Your task to perform on an android device: uninstall "Spotify: Music and Podcasts" Image 0: 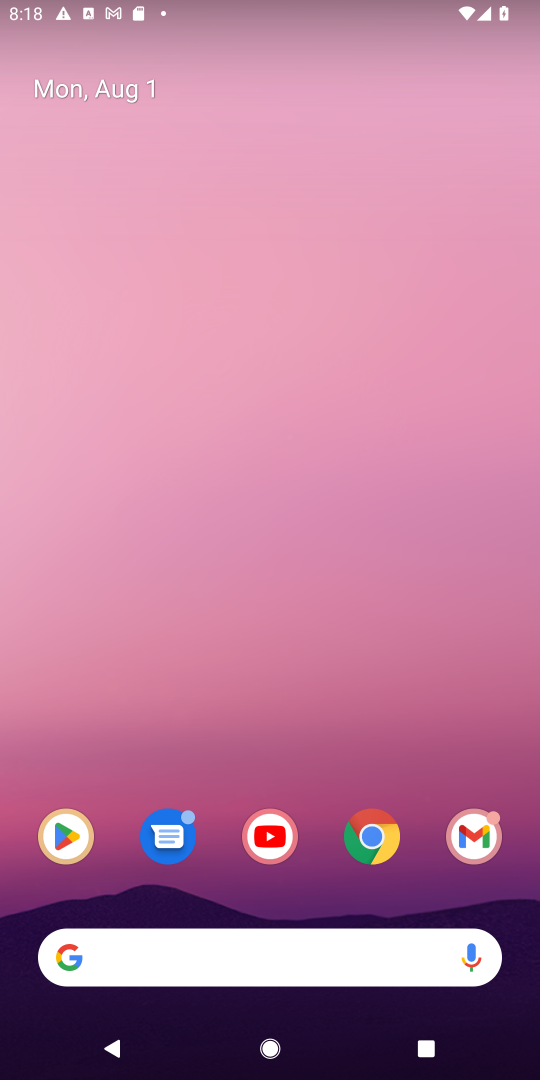
Step 0: press home button
Your task to perform on an android device: uninstall "Spotify: Music and Podcasts" Image 1: 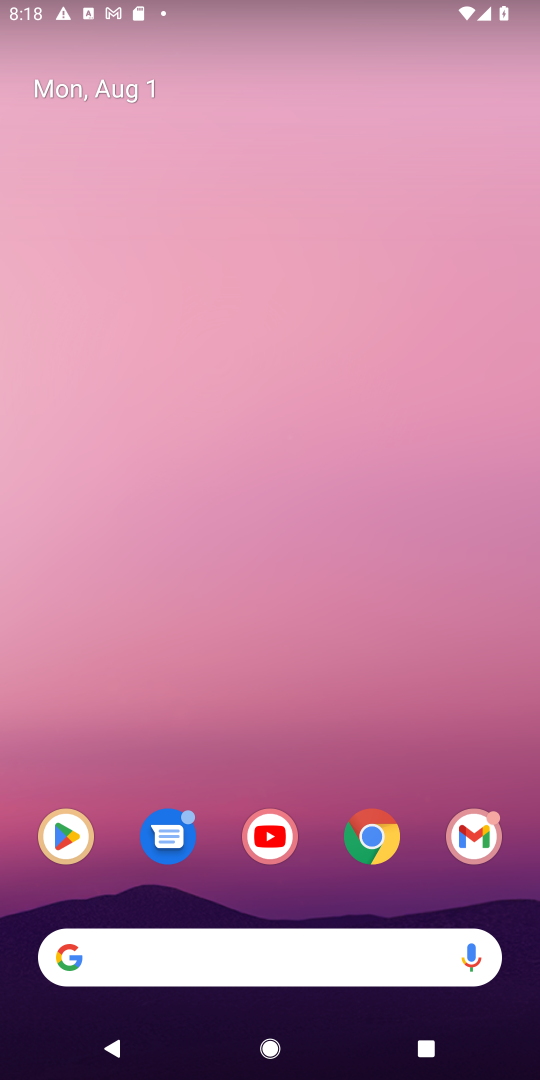
Step 1: click (61, 828)
Your task to perform on an android device: uninstall "Spotify: Music and Podcasts" Image 2: 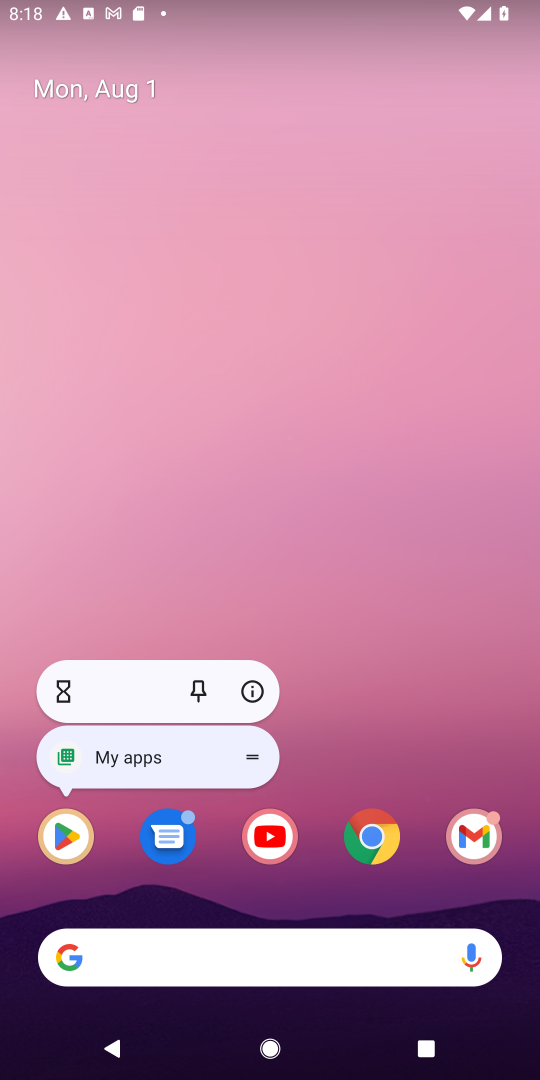
Step 2: click (67, 830)
Your task to perform on an android device: uninstall "Spotify: Music and Podcasts" Image 3: 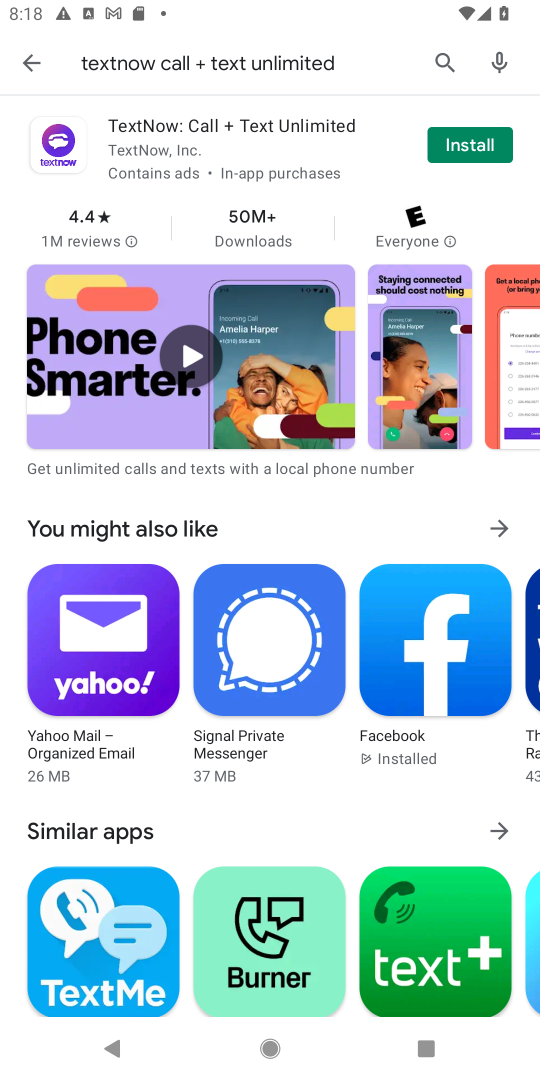
Step 3: click (442, 54)
Your task to perform on an android device: uninstall "Spotify: Music and Podcasts" Image 4: 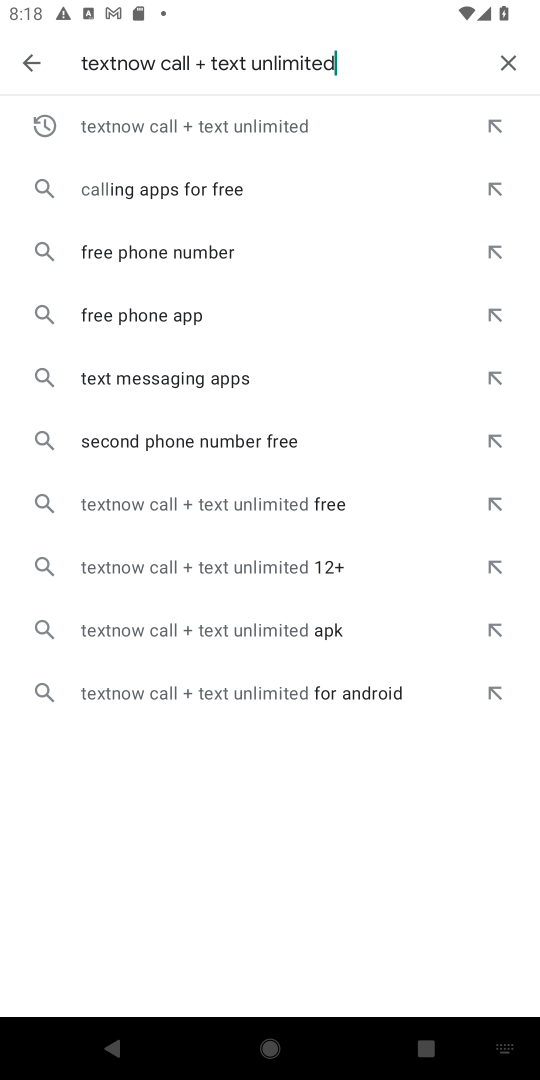
Step 4: click (508, 63)
Your task to perform on an android device: uninstall "Spotify: Music and Podcasts" Image 5: 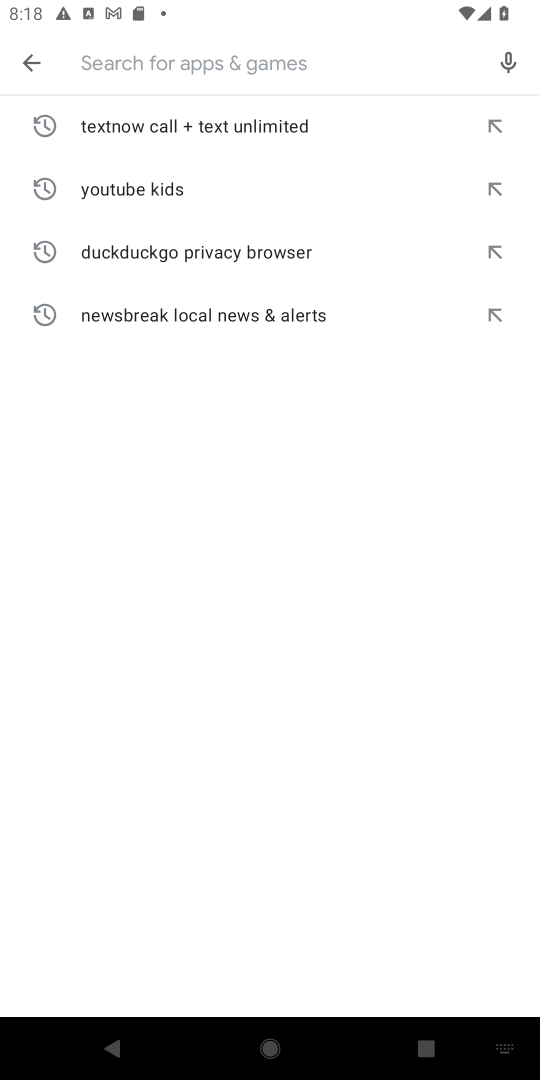
Step 5: type "Spotify: Music and Podcasts"
Your task to perform on an android device: uninstall "Spotify: Music and Podcasts" Image 6: 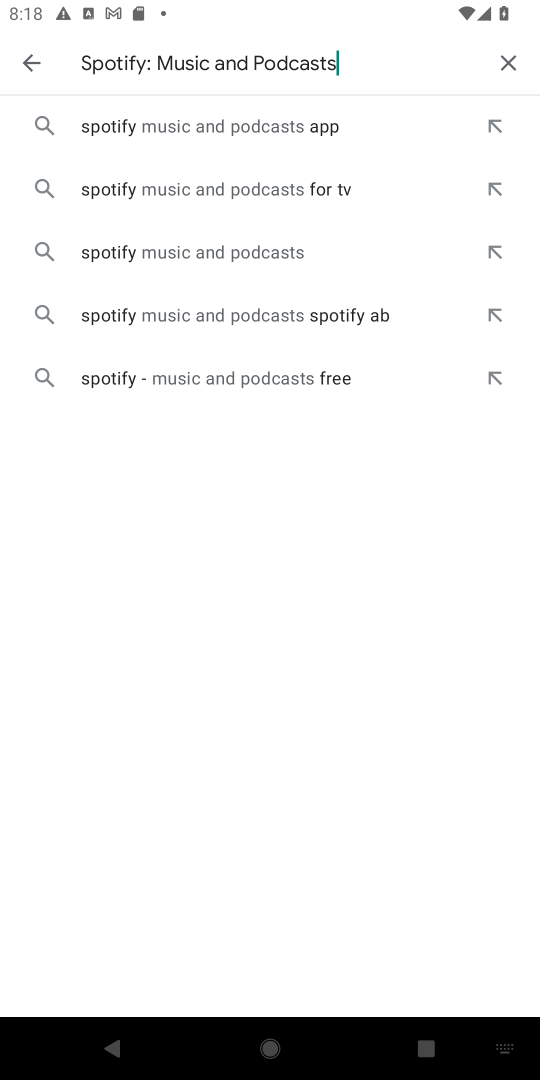
Step 6: click (295, 131)
Your task to perform on an android device: uninstall "Spotify: Music and Podcasts" Image 7: 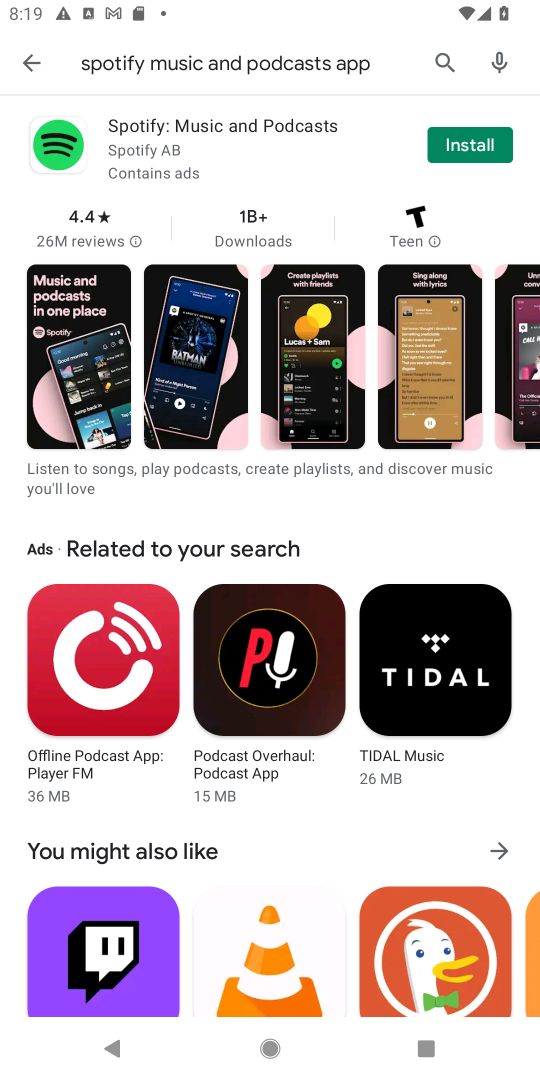
Step 7: task complete